Your task to perform on an android device: Do I have any events this weekend? Image 0: 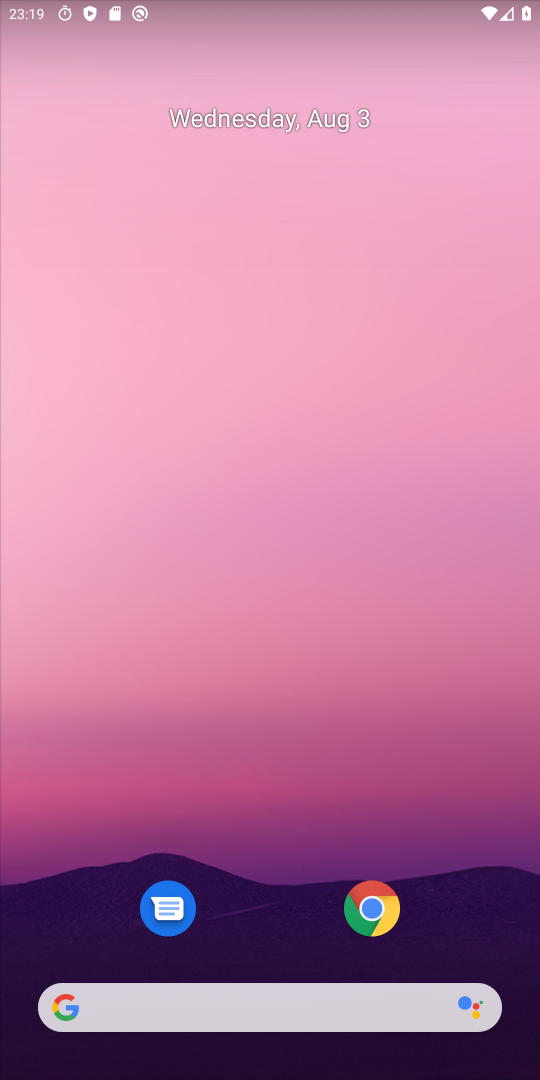
Step 0: press home button
Your task to perform on an android device: Do I have any events this weekend? Image 1: 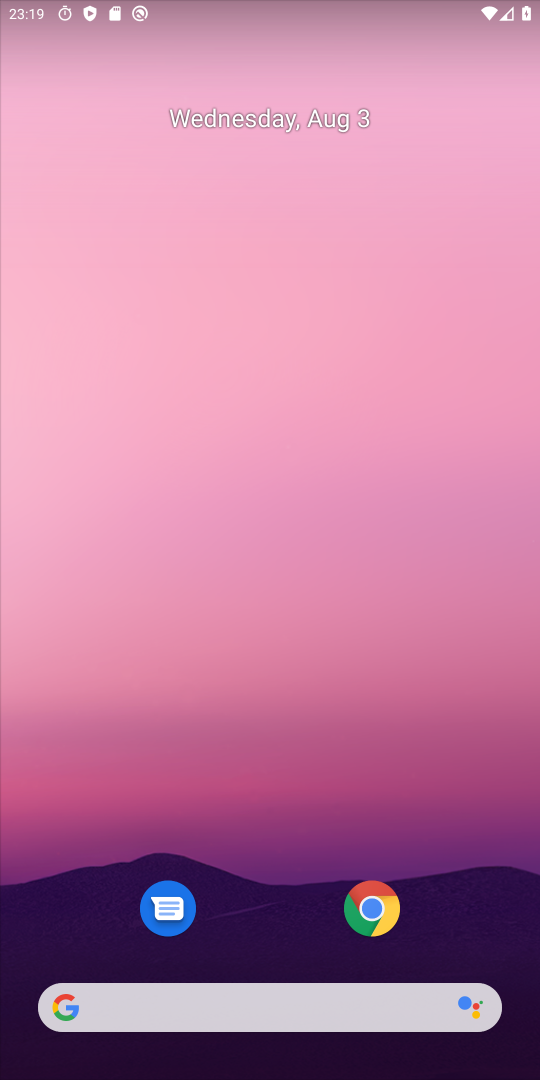
Step 1: drag from (313, 1060) to (196, 299)
Your task to perform on an android device: Do I have any events this weekend? Image 2: 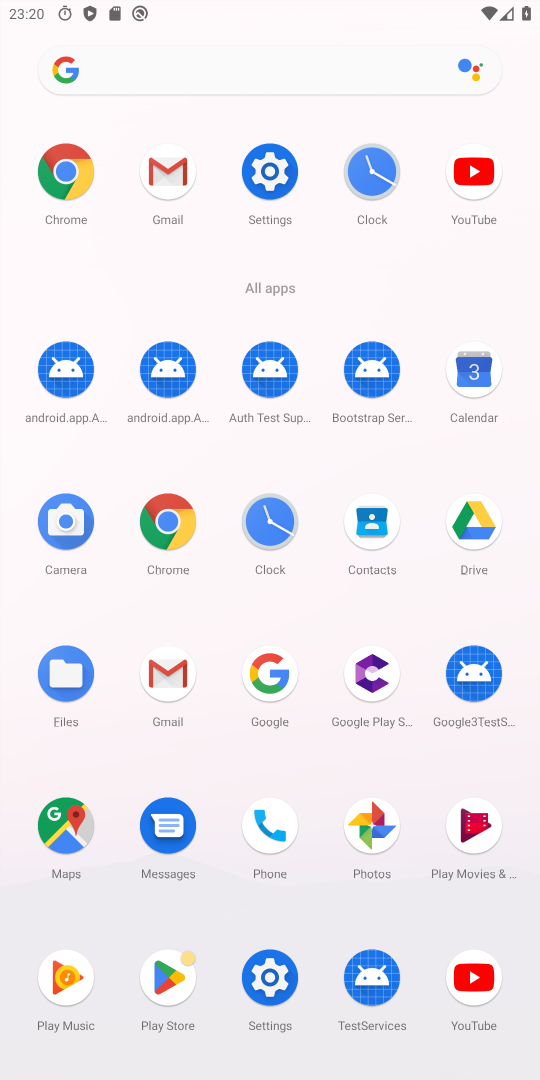
Step 2: click (475, 377)
Your task to perform on an android device: Do I have any events this weekend? Image 3: 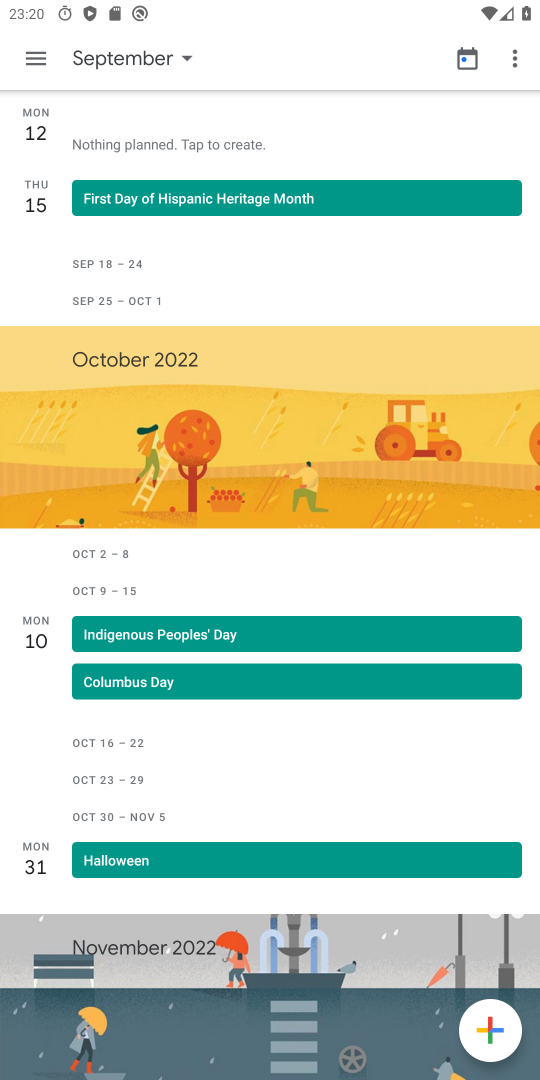
Step 3: click (34, 80)
Your task to perform on an android device: Do I have any events this weekend? Image 4: 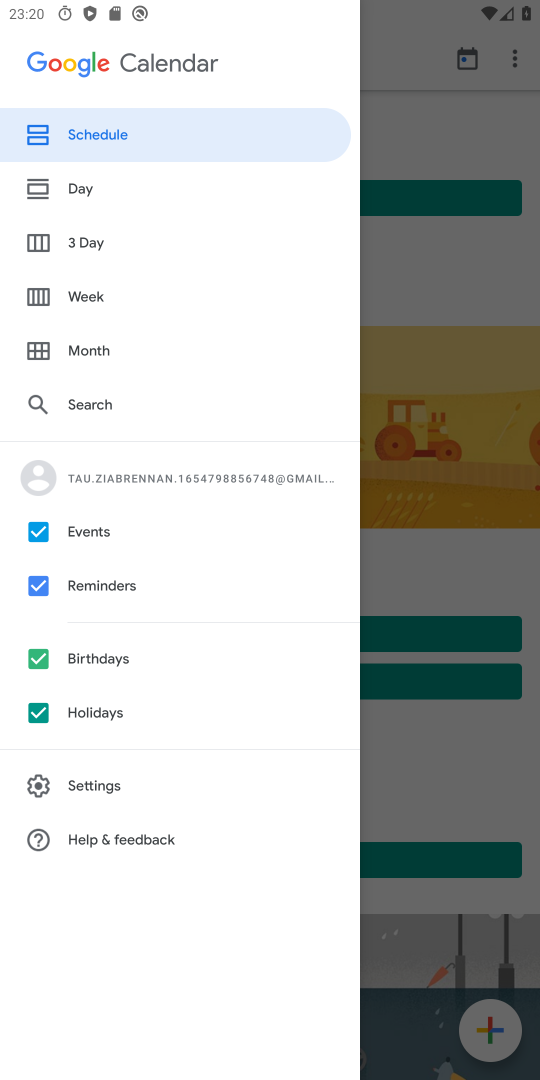
Step 4: click (109, 352)
Your task to perform on an android device: Do I have any events this weekend? Image 5: 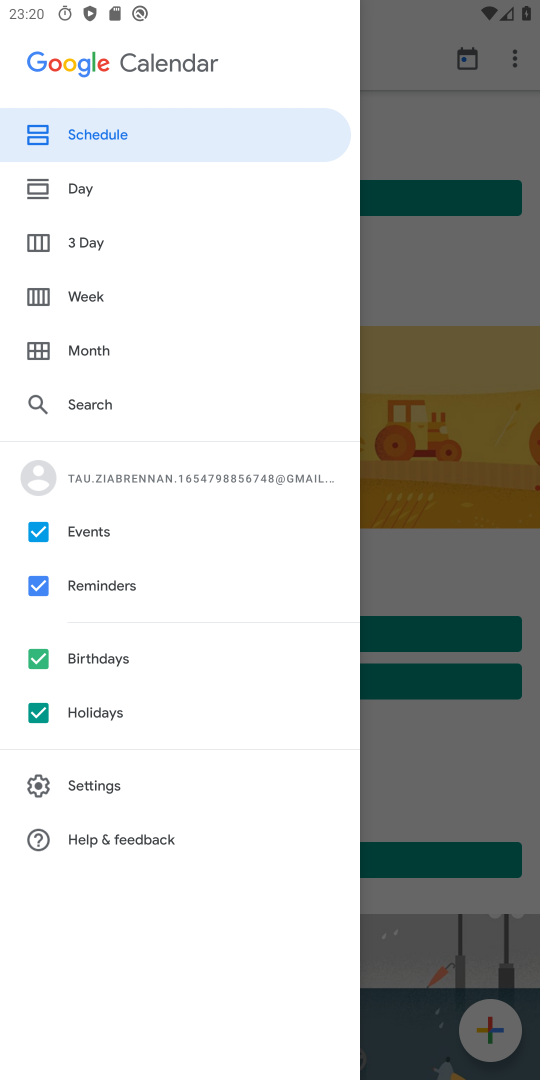
Step 5: click (129, 341)
Your task to perform on an android device: Do I have any events this weekend? Image 6: 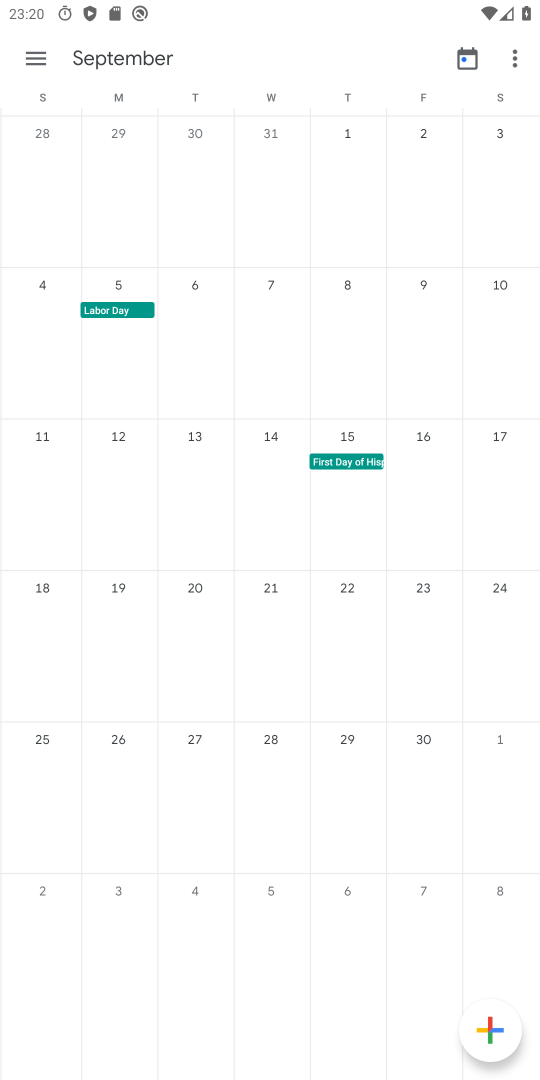
Step 6: drag from (26, 578) to (517, 655)
Your task to perform on an android device: Do I have any events this weekend? Image 7: 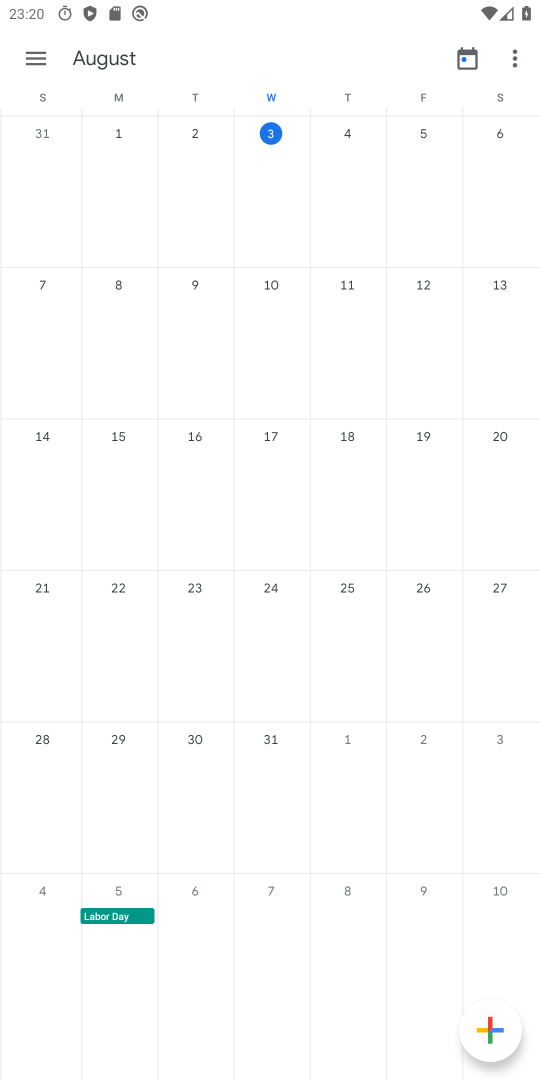
Step 7: click (257, 205)
Your task to perform on an android device: Do I have any events this weekend? Image 8: 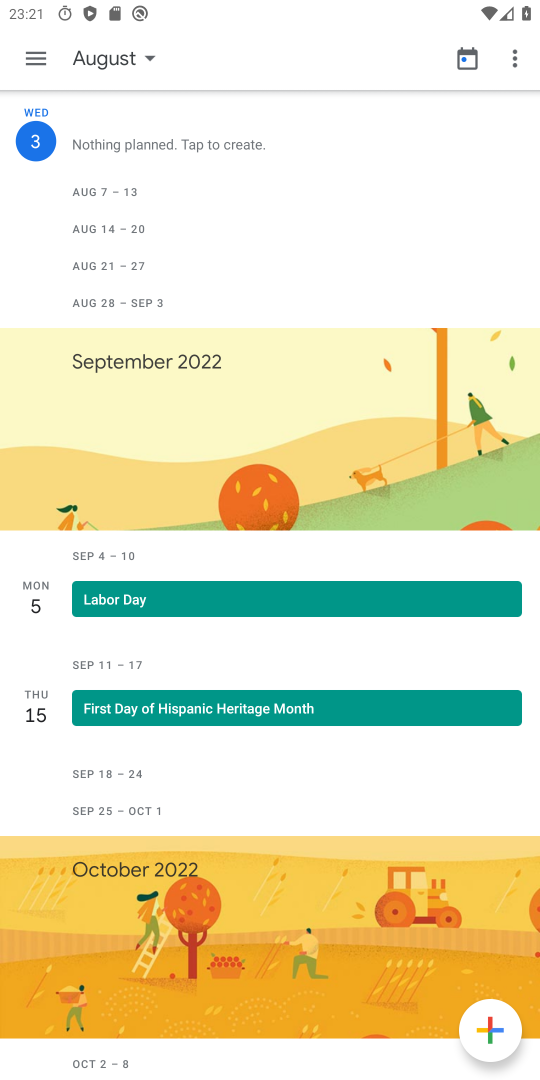
Step 8: task complete